Your task to perform on an android device: Go to accessibility settings Image 0: 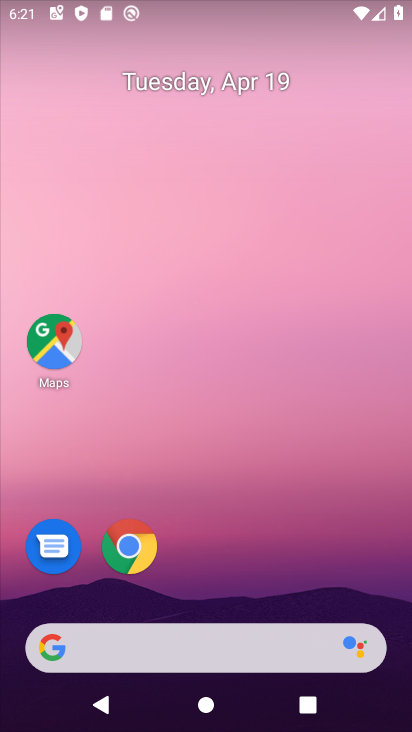
Step 0: drag from (246, 332) to (201, 89)
Your task to perform on an android device: Go to accessibility settings Image 1: 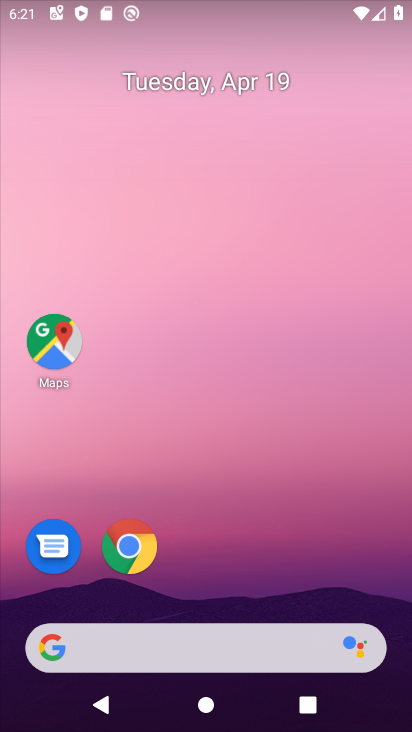
Step 1: drag from (232, 557) to (257, 110)
Your task to perform on an android device: Go to accessibility settings Image 2: 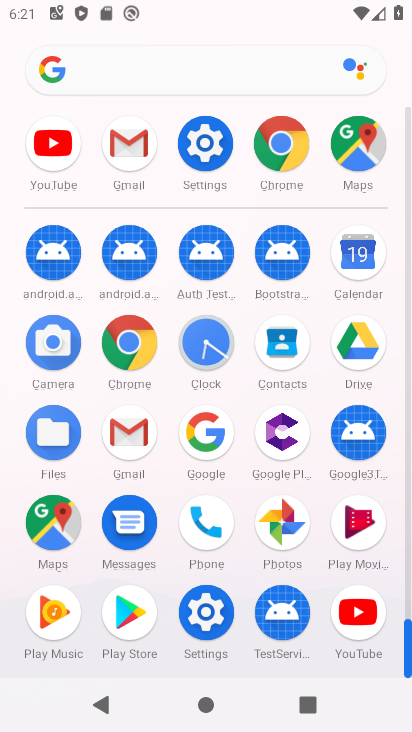
Step 2: click (208, 143)
Your task to perform on an android device: Go to accessibility settings Image 3: 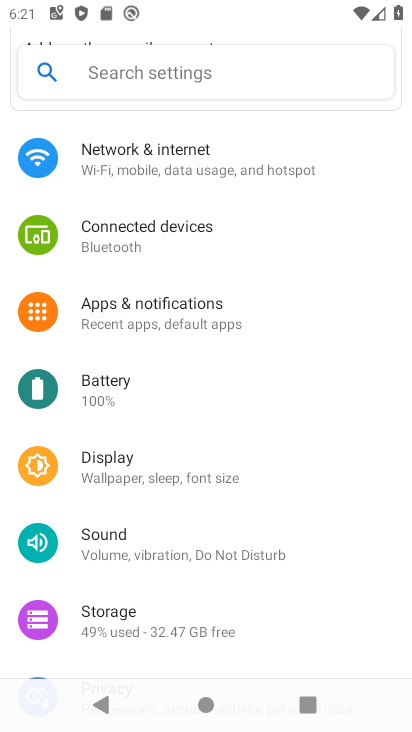
Step 3: drag from (267, 623) to (343, 91)
Your task to perform on an android device: Go to accessibility settings Image 4: 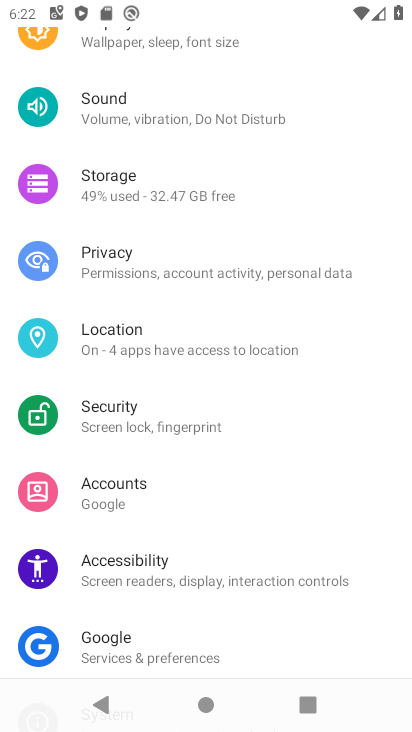
Step 4: drag from (241, 626) to (297, 184)
Your task to perform on an android device: Go to accessibility settings Image 5: 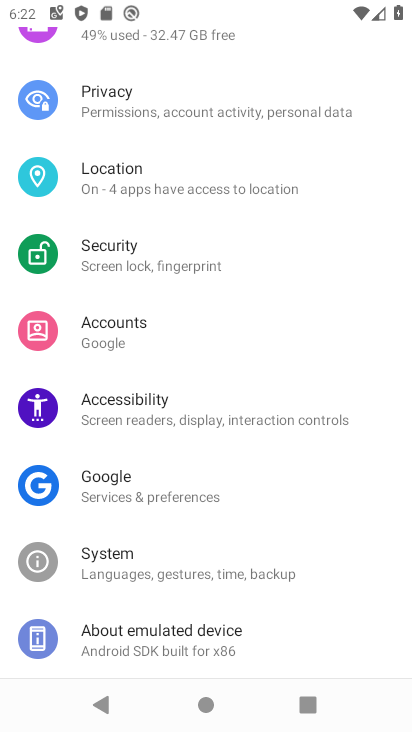
Step 5: click (162, 412)
Your task to perform on an android device: Go to accessibility settings Image 6: 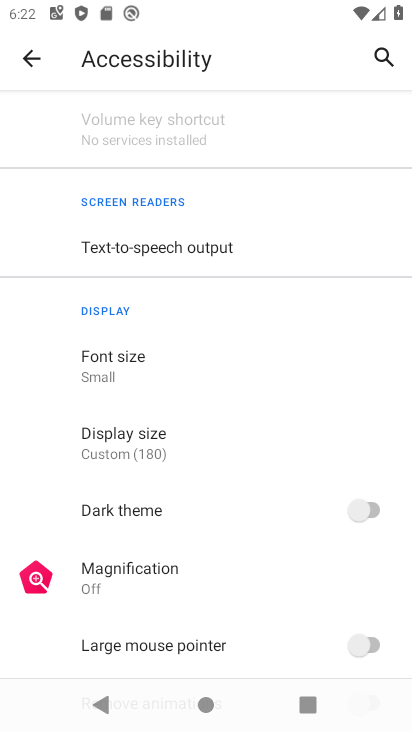
Step 6: task complete